Your task to perform on an android device: Open Google Chrome Image 0: 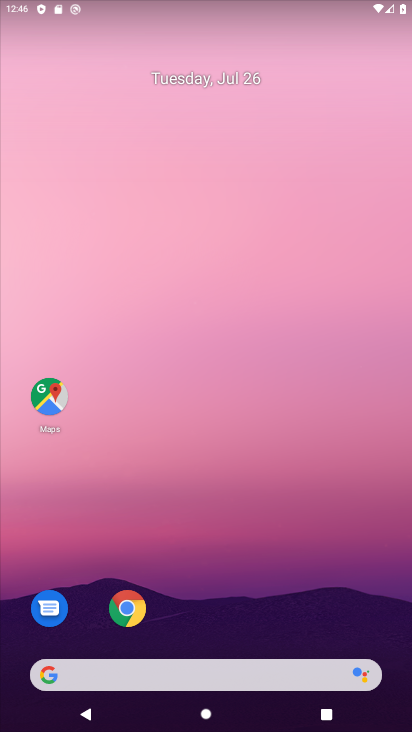
Step 0: press enter
Your task to perform on an android device: Open Google Chrome Image 1: 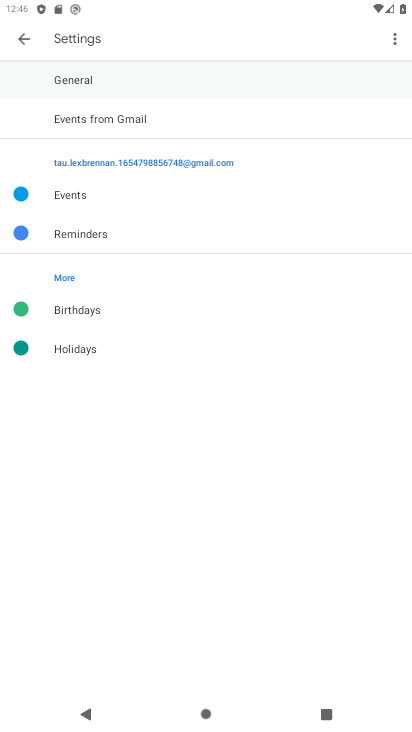
Step 1: press home button
Your task to perform on an android device: Open Google Chrome Image 2: 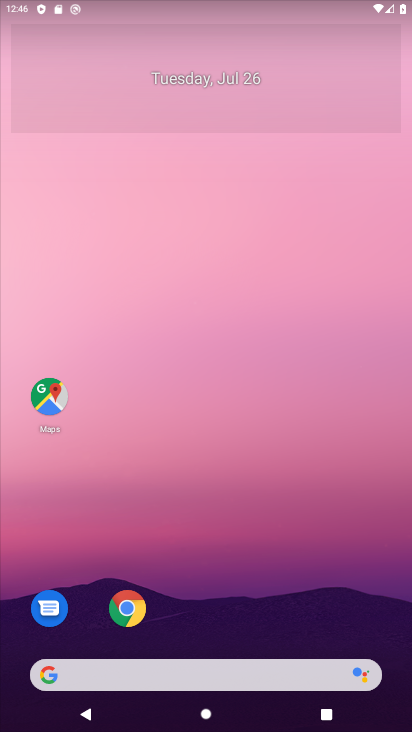
Step 2: click (134, 609)
Your task to perform on an android device: Open Google Chrome Image 3: 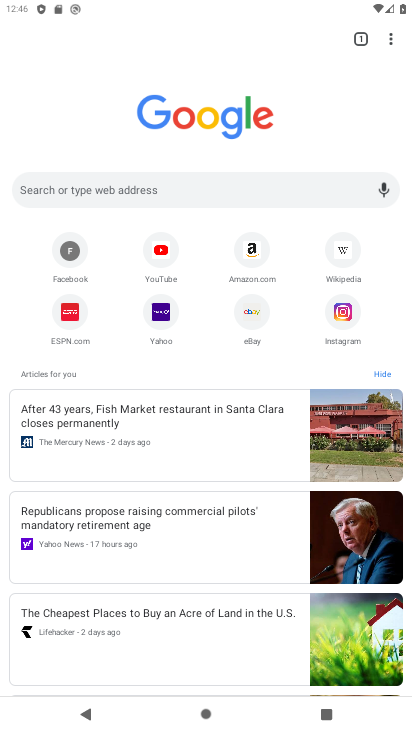
Step 3: task complete